Your task to perform on an android device: Clear all items from cart on target.com. Image 0: 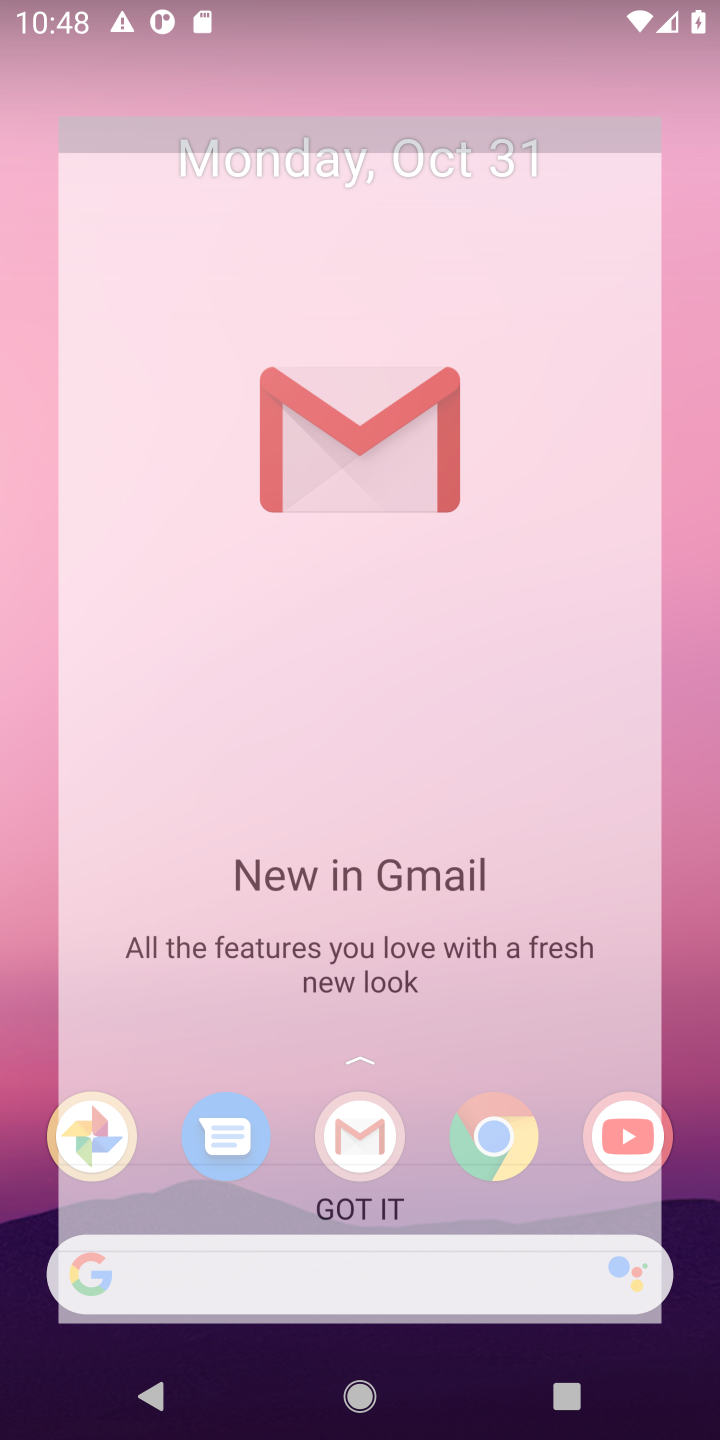
Step 0: press home button
Your task to perform on an android device: Clear all items from cart on target.com. Image 1: 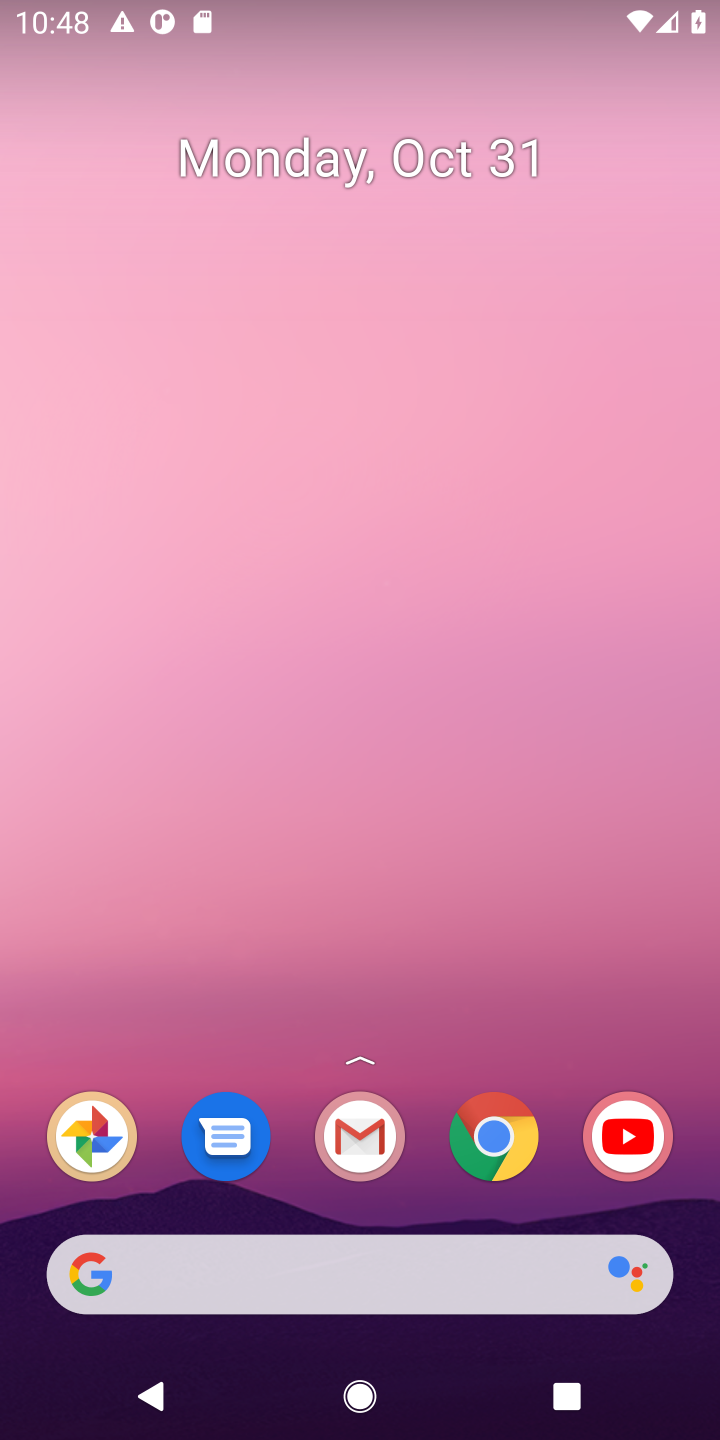
Step 1: click (158, 1260)
Your task to perform on an android device: Clear all items from cart on target.com. Image 2: 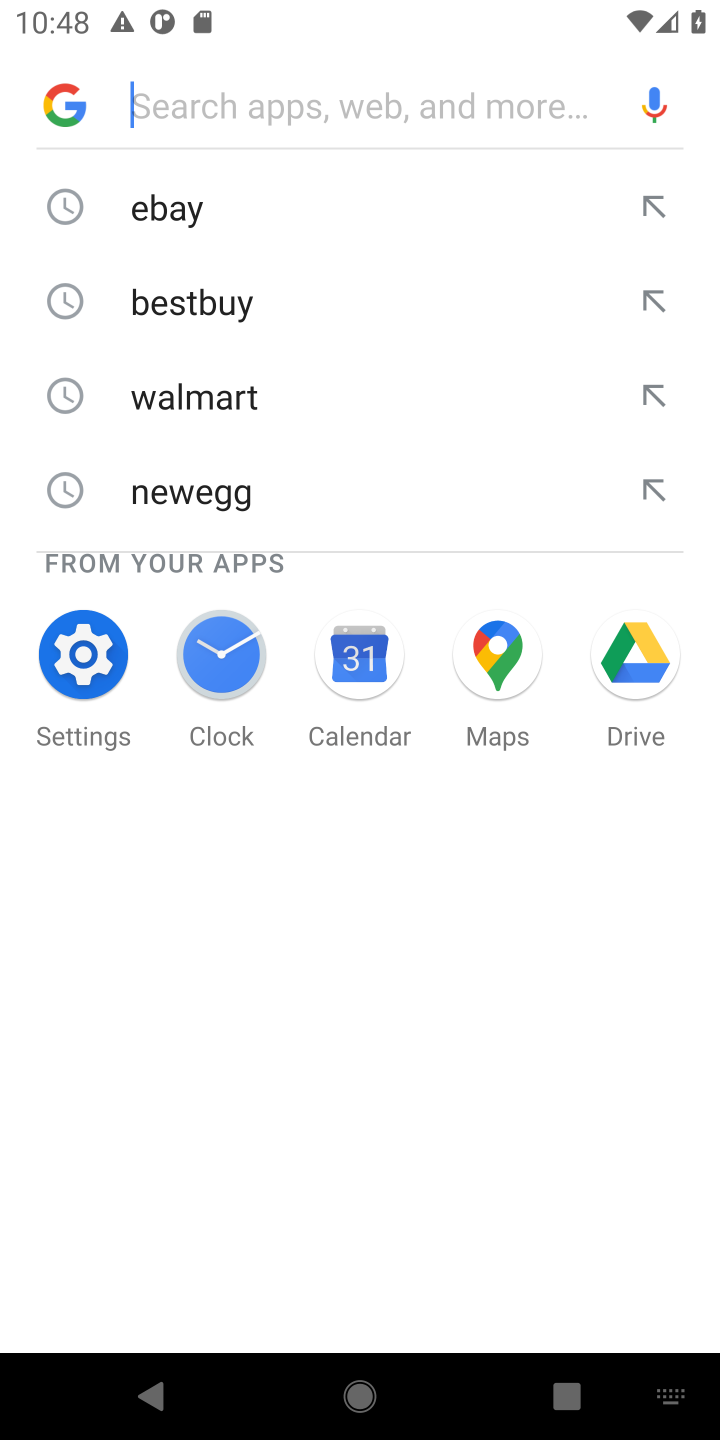
Step 2: press enter
Your task to perform on an android device: Clear all items from cart on target.com. Image 3: 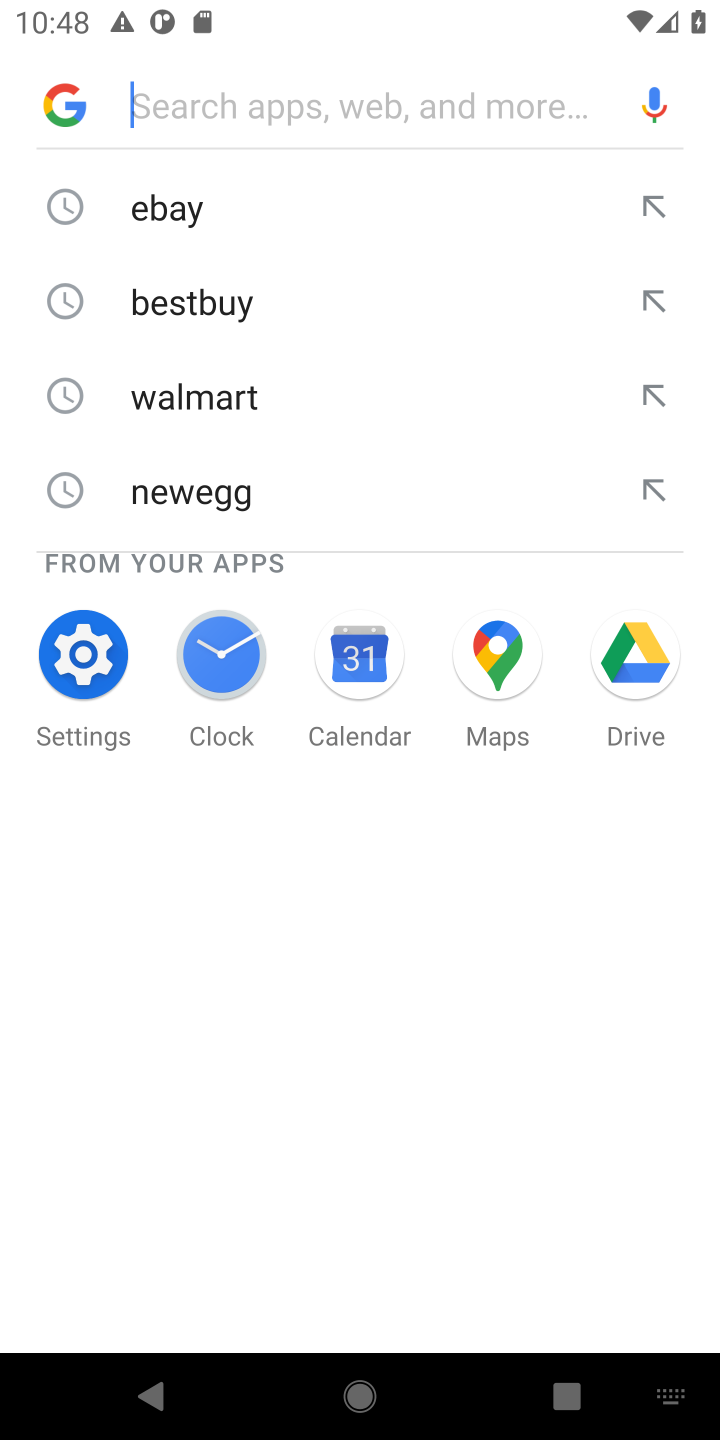
Step 3: type "target.com."
Your task to perform on an android device: Clear all items from cart on target.com. Image 4: 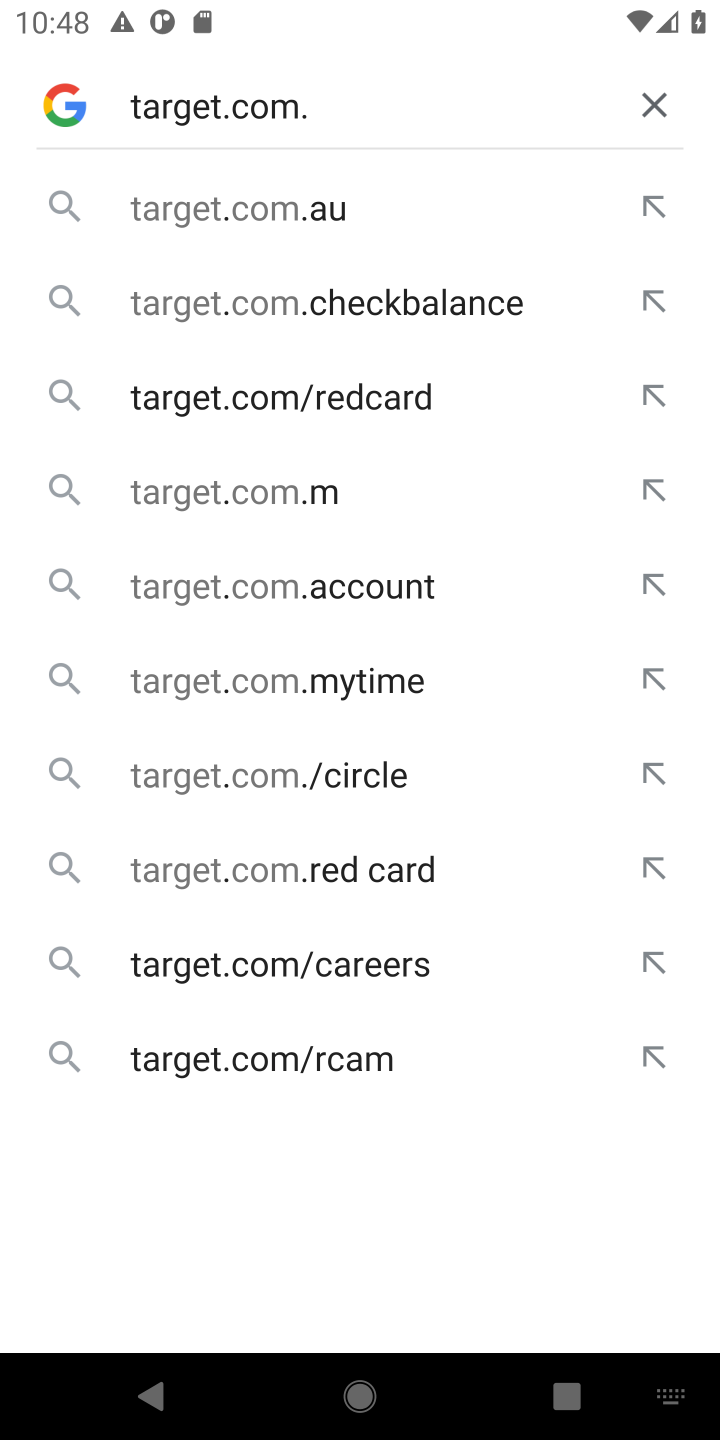
Step 4: press enter
Your task to perform on an android device: Clear all items from cart on target.com. Image 5: 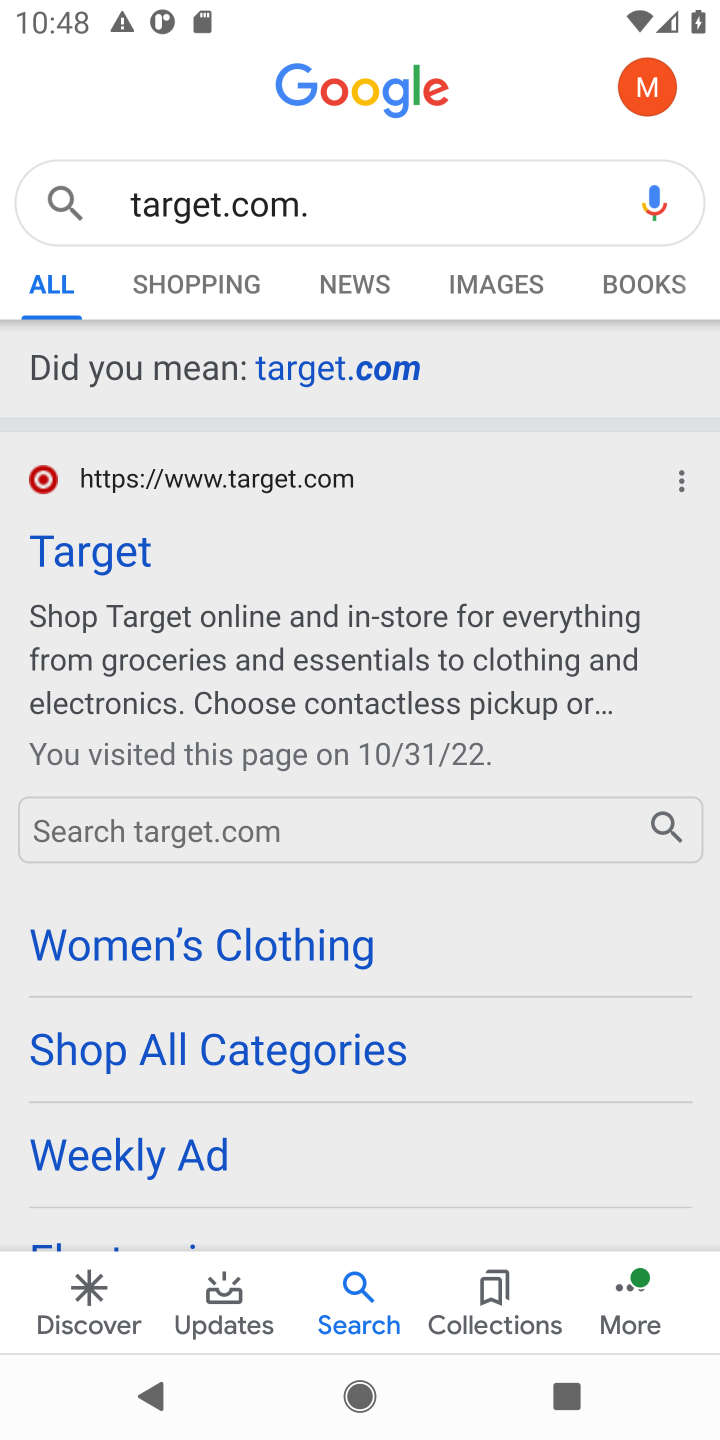
Step 5: click (122, 559)
Your task to perform on an android device: Clear all items from cart on target.com. Image 6: 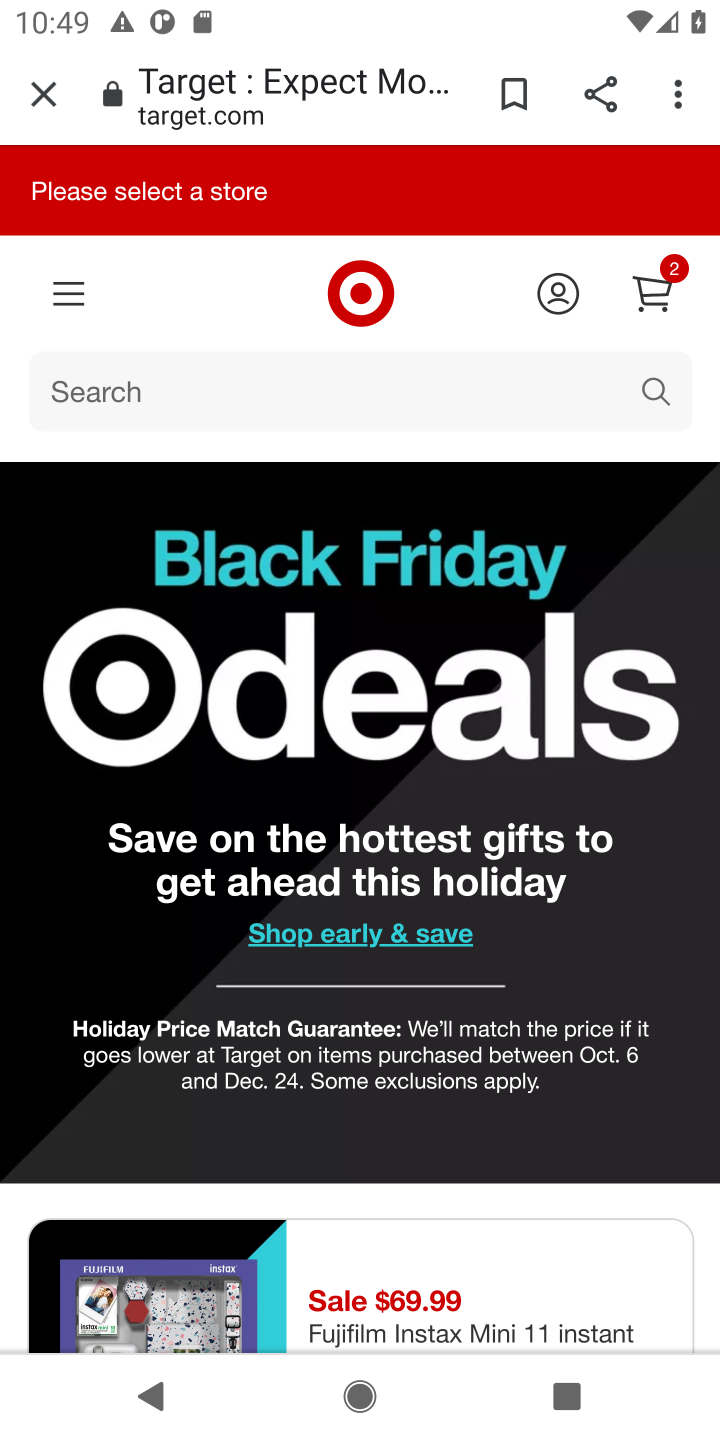
Step 6: click (664, 284)
Your task to perform on an android device: Clear all items from cart on target.com. Image 7: 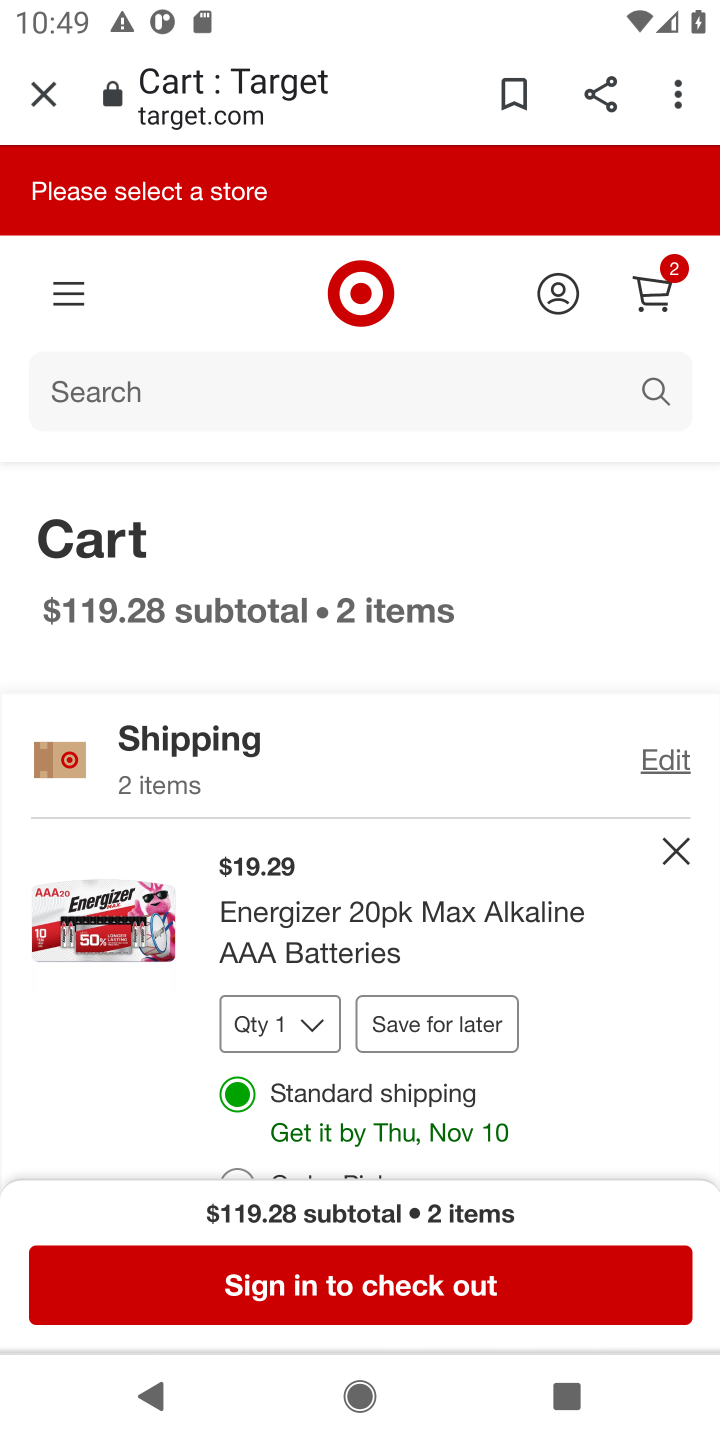
Step 7: click (676, 855)
Your task to perform on an android device: Clear all items from cart on target.com. Image 8: 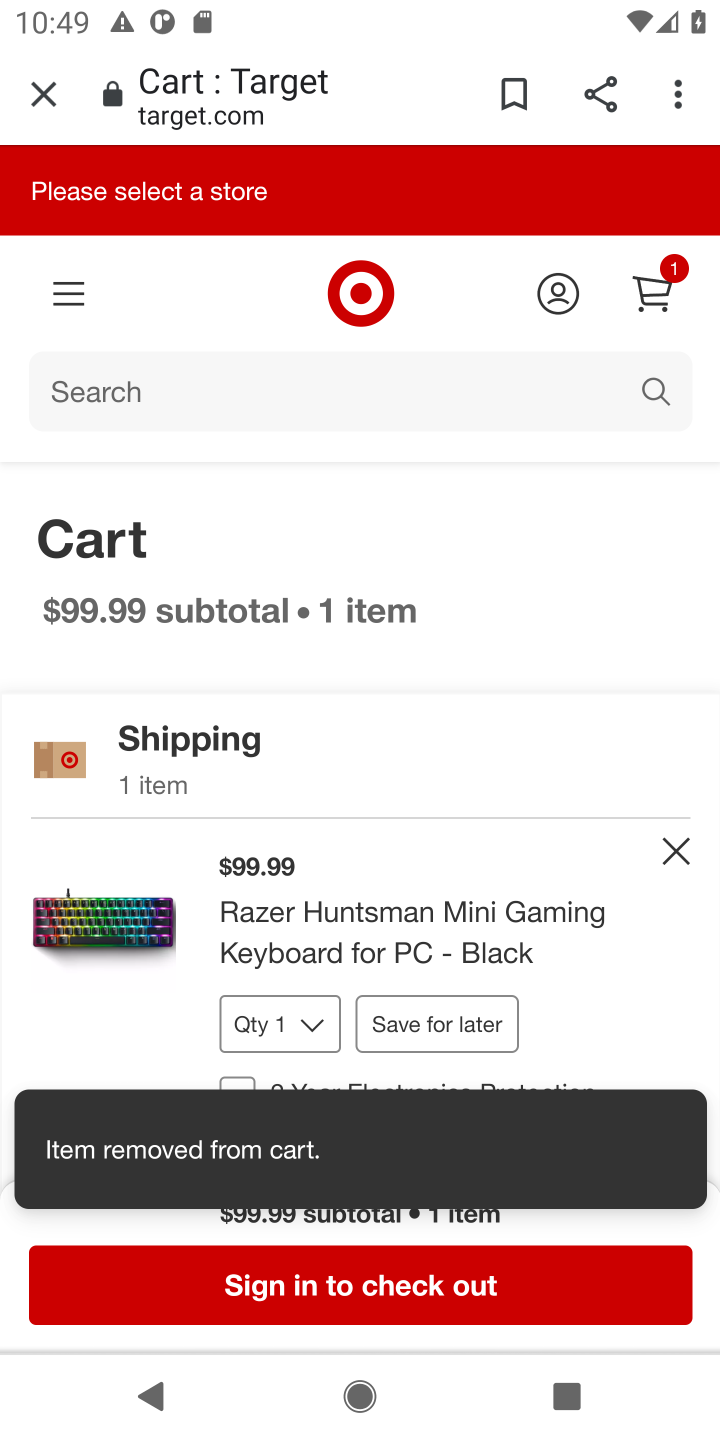
Step 8: click (662, 845)
Your task to perform on an android device: Clear all items from cart on target.com. Image 9: 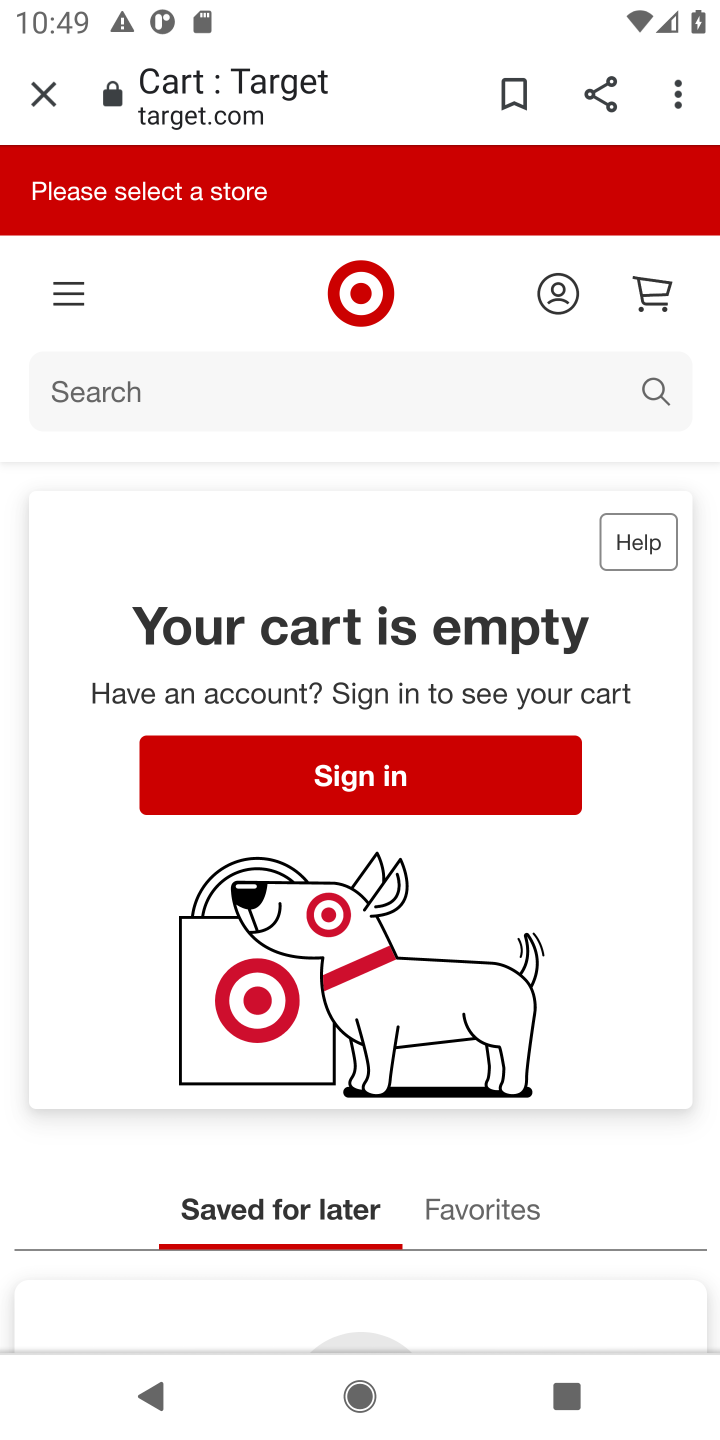
Step 9: task complete